Your task to perform on an android device: turn off wifi Image 0: 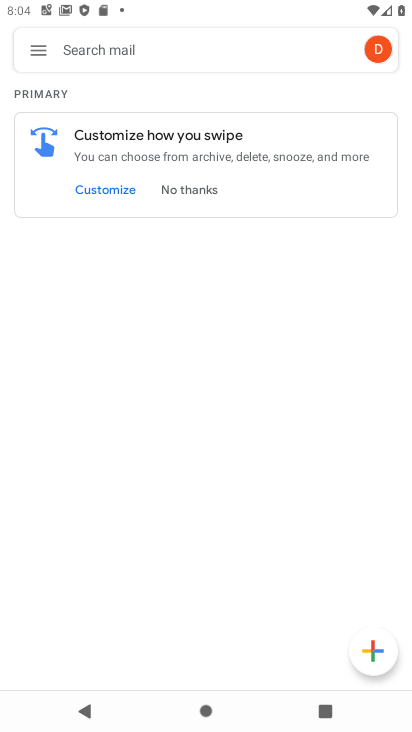
Step 0: press home button
Your task to perform on an android device: turn off wifi Image 1: 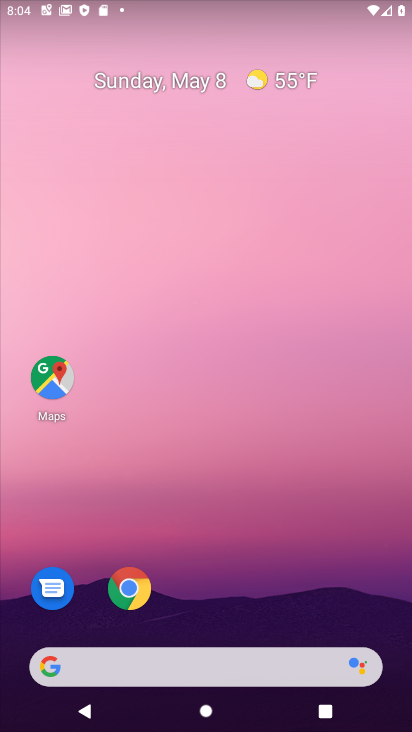
Step 1: drag from (185, 3) to (215, 452)
Your task to perform on an android device: turn off wifi Image 2: 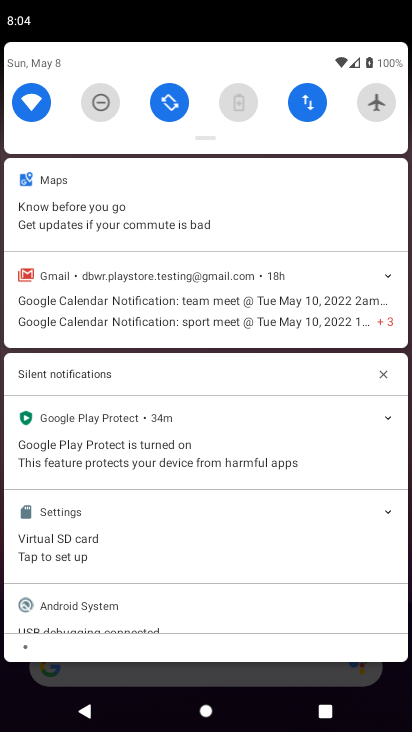
Step 2: click (34, 95)
Your task to perform on an android device: turn off wifi Image 3: 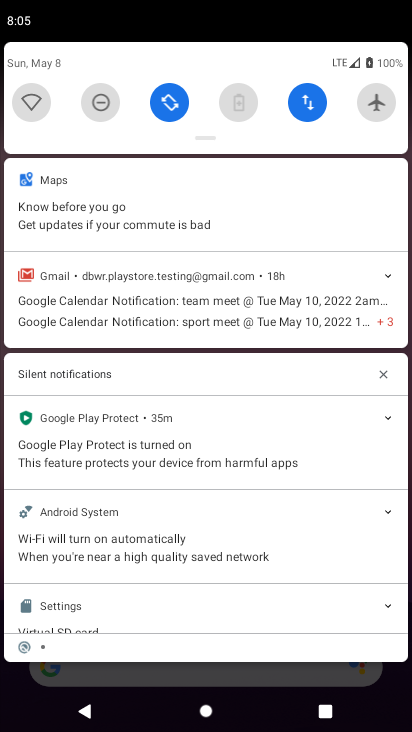
Step 3: task complete